Your task to perform on an android device: What is the recent news? Image 0: 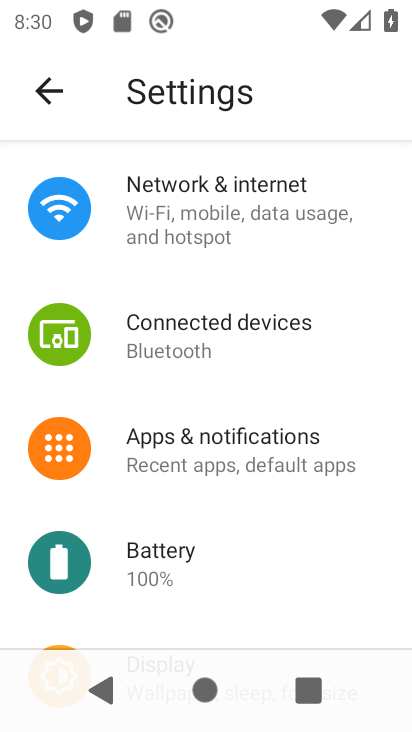
Step 0: press home button
Your task to perform on an android device: What is the recent news? Image 1: 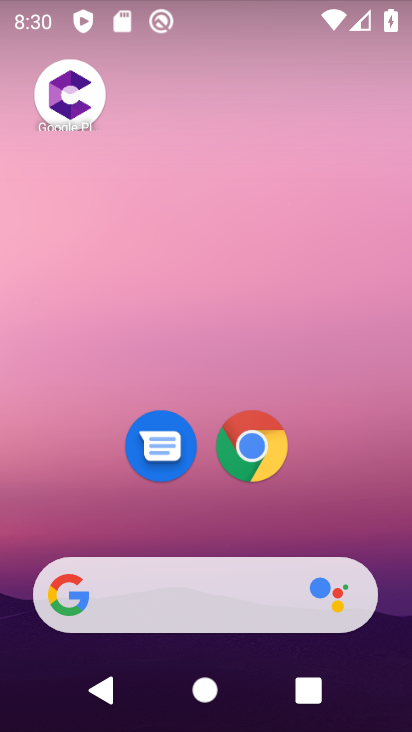
Step 1: task complete